Your task to perform on an android device: make emails show in primary in the gmail app Image 0: 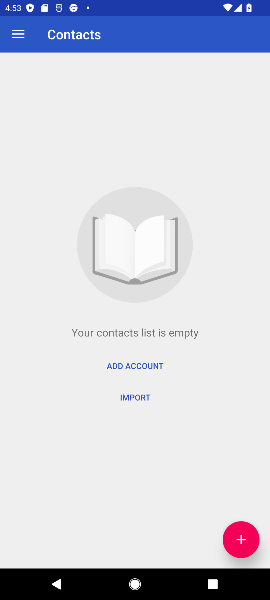
Step 0: press home button
Your task to perform on an android device: make emails show in primary in the gmail app Image 1: 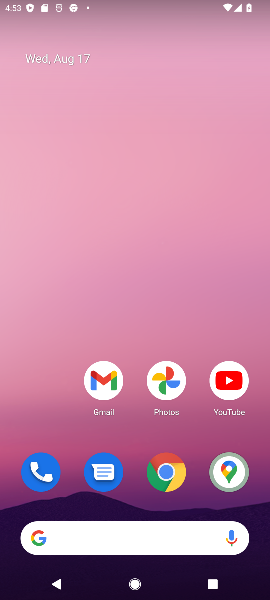
Step 1: click (107, 404)
Your task to perform on an android device: make emails show in primary in the gmail app Image 2: 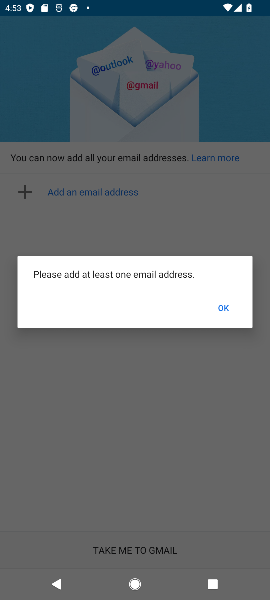
Step 2: click (222, 301)
Your task to perform on an android device: make emails show in primary in the gmail app Image 3: 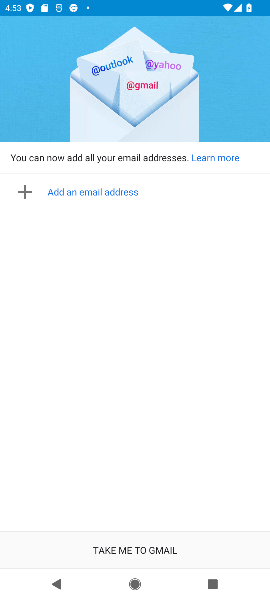
Step 3: task complete